Your task to perform on an android device: Open settings Image 0: 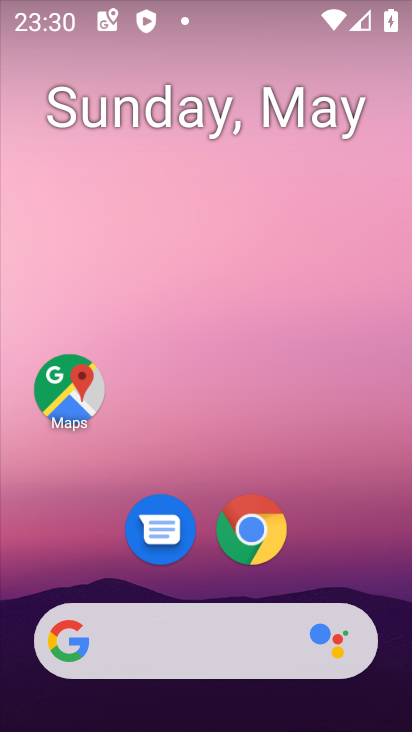
Step 0: drag from (296, 560) to (183, 1)
Your task to perform on an android device: Open settings Image 1: 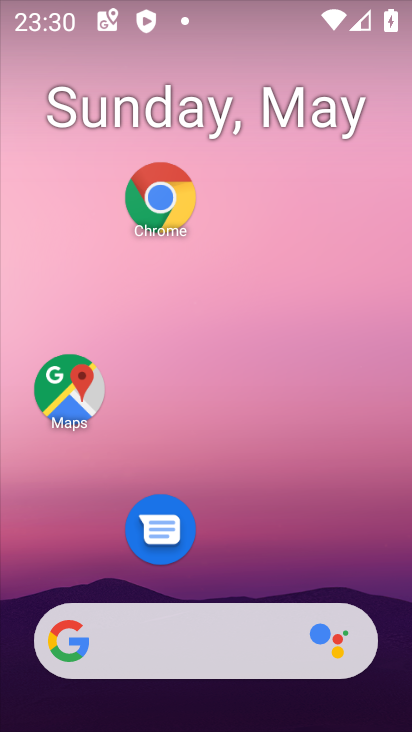
Step 1: click (289, 460)
Your task to perform on an android device: Open settings Image 2: 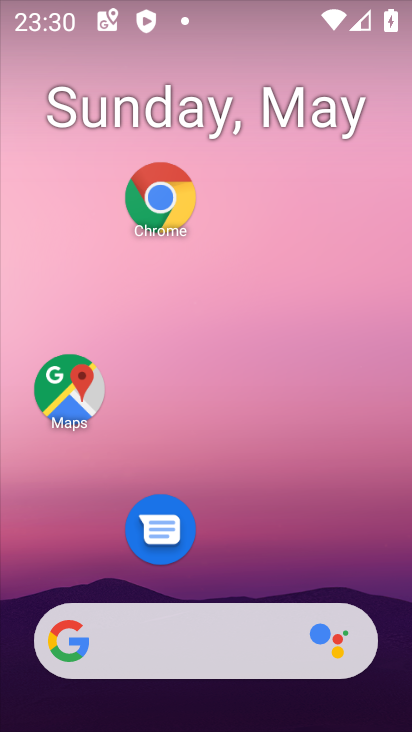
Step 2: task complete